Your task to perform on an android device: Go to ESPN.com Image 0: 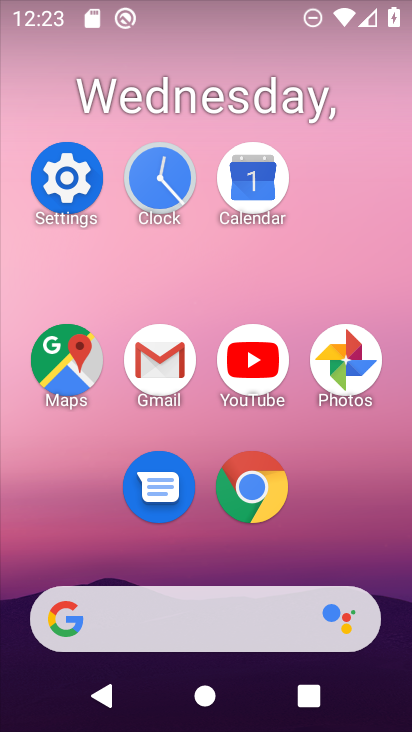
Step 0: click (250, 489)
Your task to perform on an android device: Go to ESPN.com Image 1: 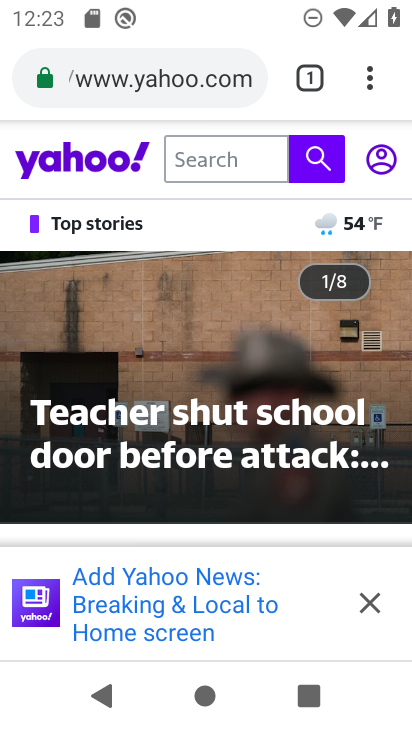
Step 1: click (313, 72)
Your task to perform on an android device: Go to ESPN.com Image 2: 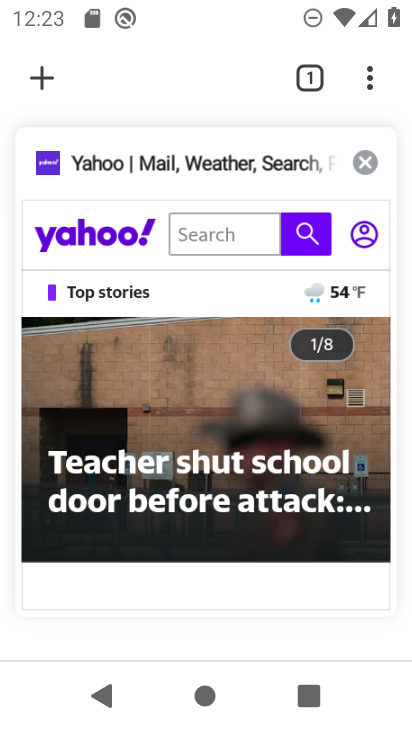
Step 2: click (58, 78)
Your task to perform on an android device: Go to ESPN.com Image 3: 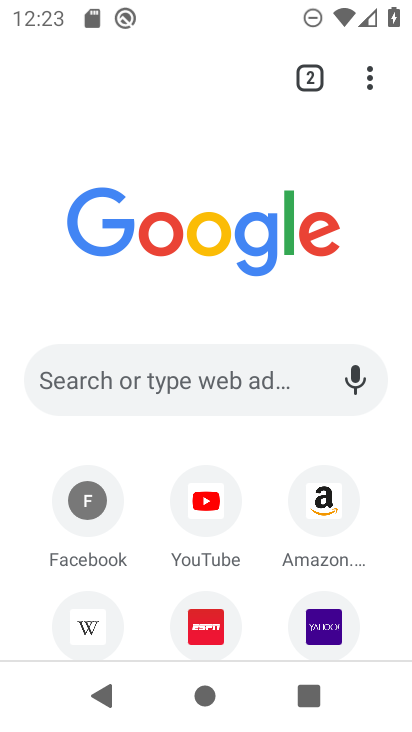
Step 3: drag from (242, 616) to (197, 224)
Your task to perform on an android device: Go to ESPN.com Image 4: 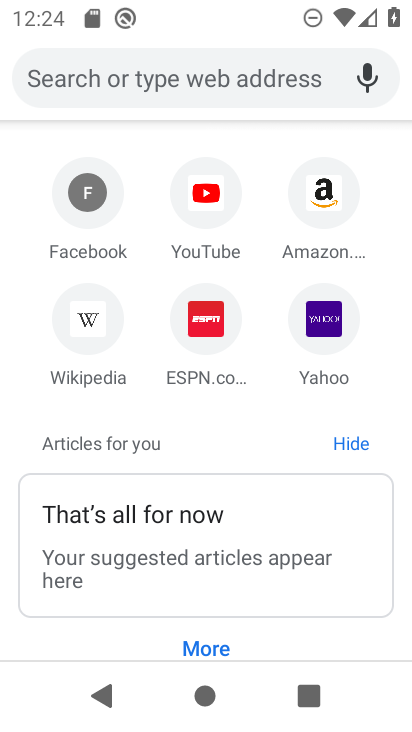
Step 4: click (197, 317)
Your task to perform on an android device: Go to ESPN.com Image 5: 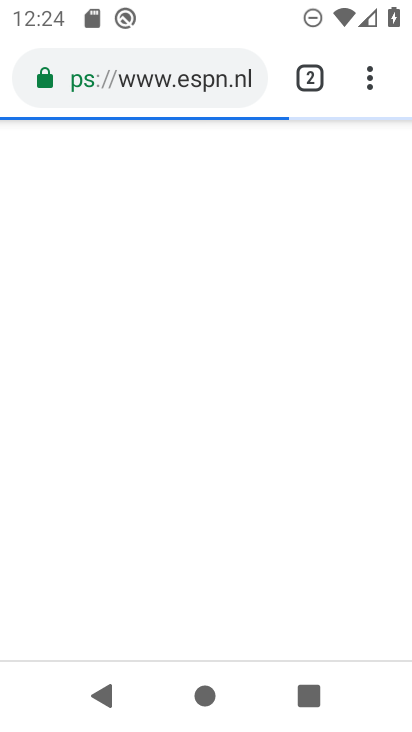
Step 5: task complete